Your task to perform on an android device: Open Google Chrome Image 0: 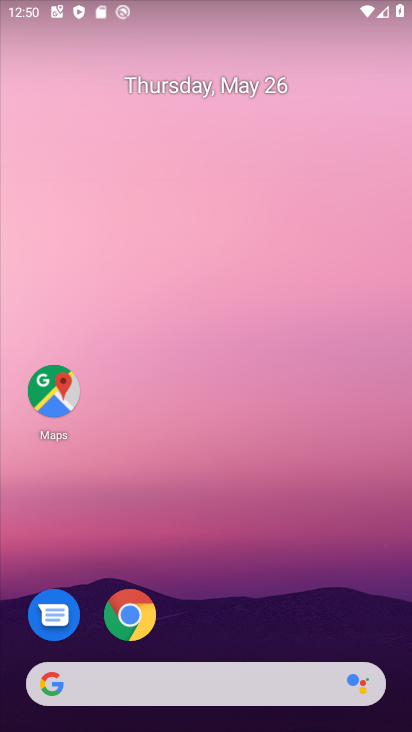
Step 0: click (123, 618)
Your task to perform on an android device: Open Google Chrome Image 1: 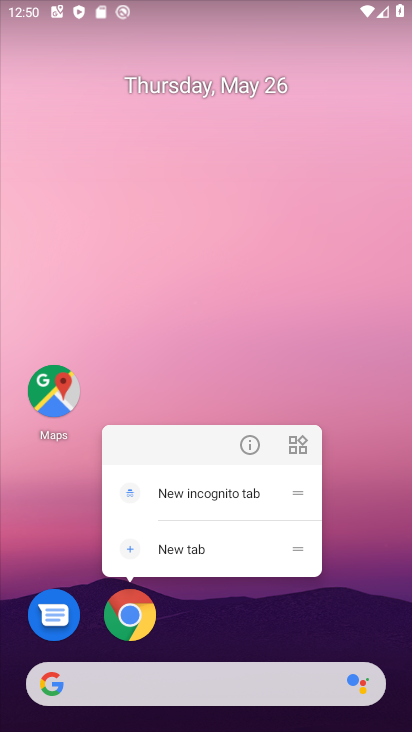
Step 1: click (130, 598)
Your task to perform on an android device: Open Google Chrome Image 2: 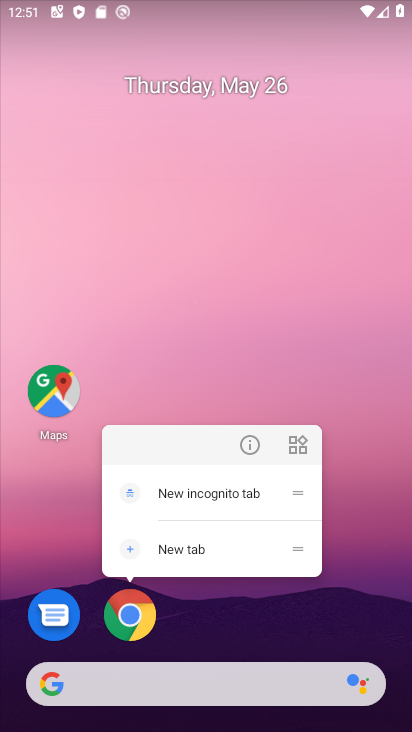
Step 2: click (125, 602)
Your task to perform on an android device: Open Google Chrome Image 3: 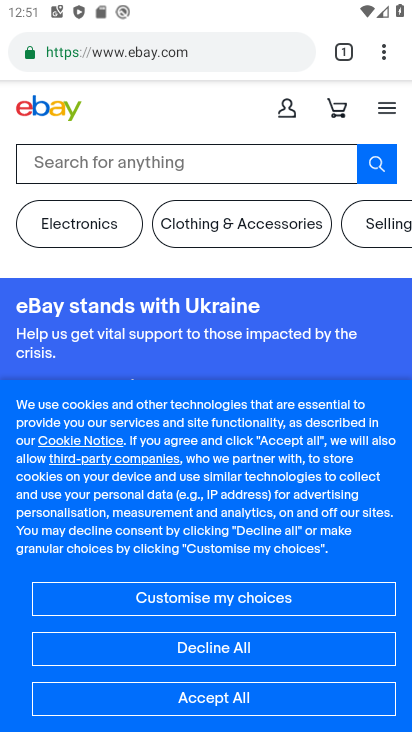
Step 3: task complete